Your task to perform on an android device: What is the news today? Image 0: 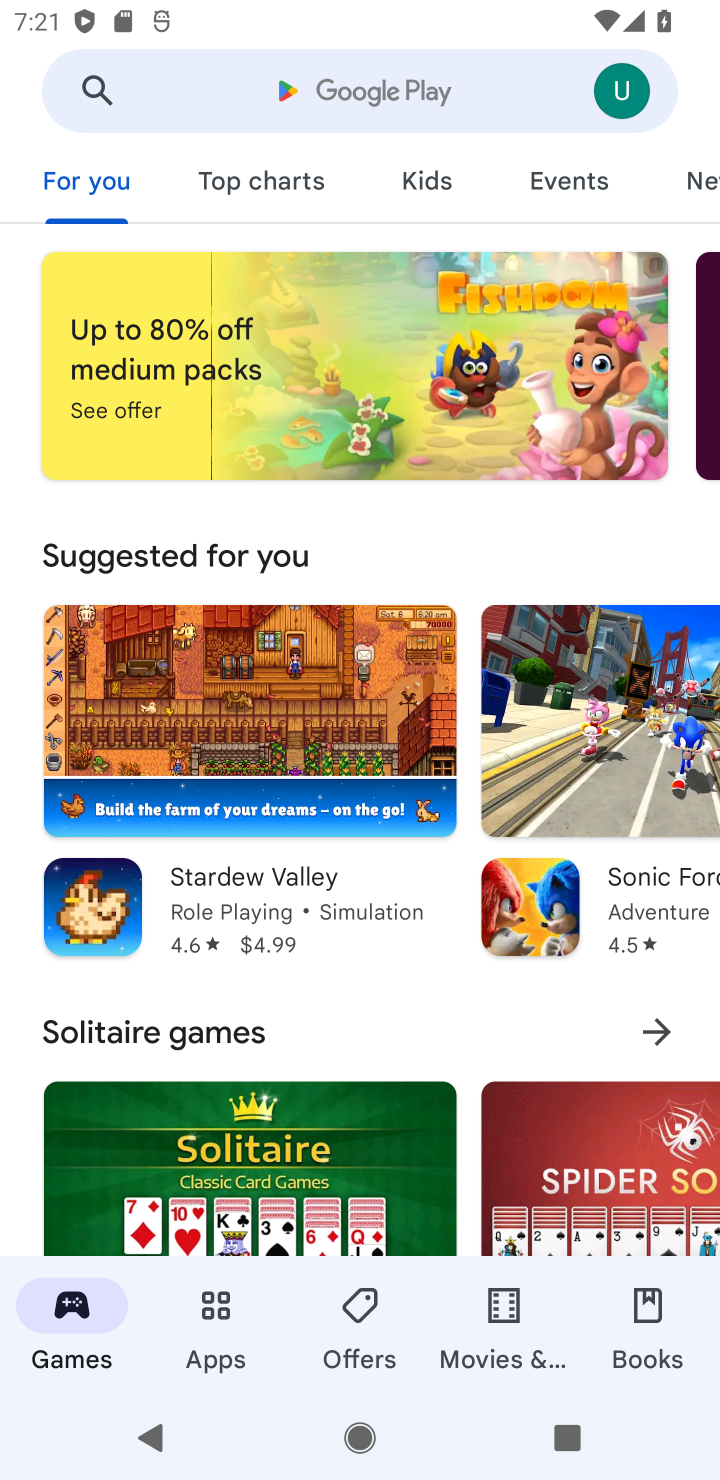
Step 0: press home button
Your task to perform on an android device: What is the news today? Image 1: 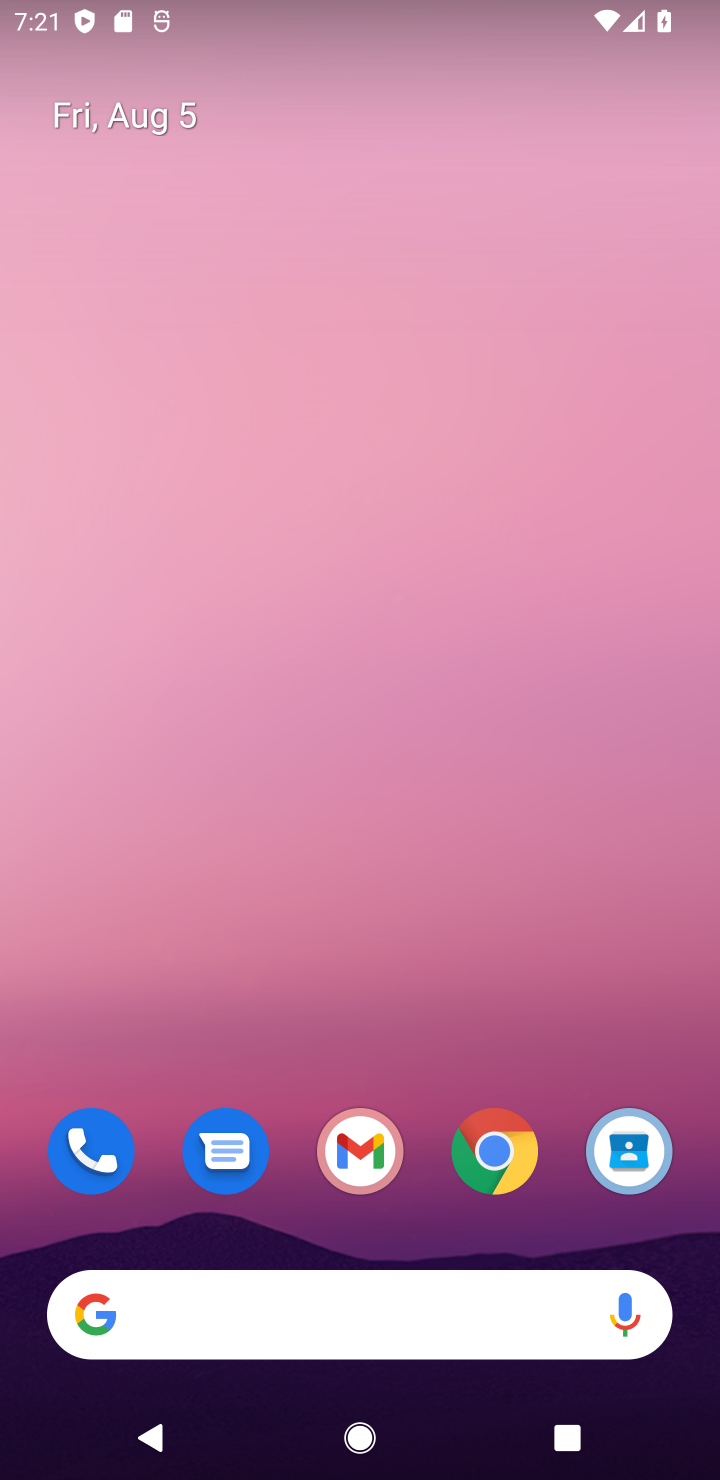
Step 1: click (219, 1335)
Your task to perform on an android device: What is the news today? Image 2: 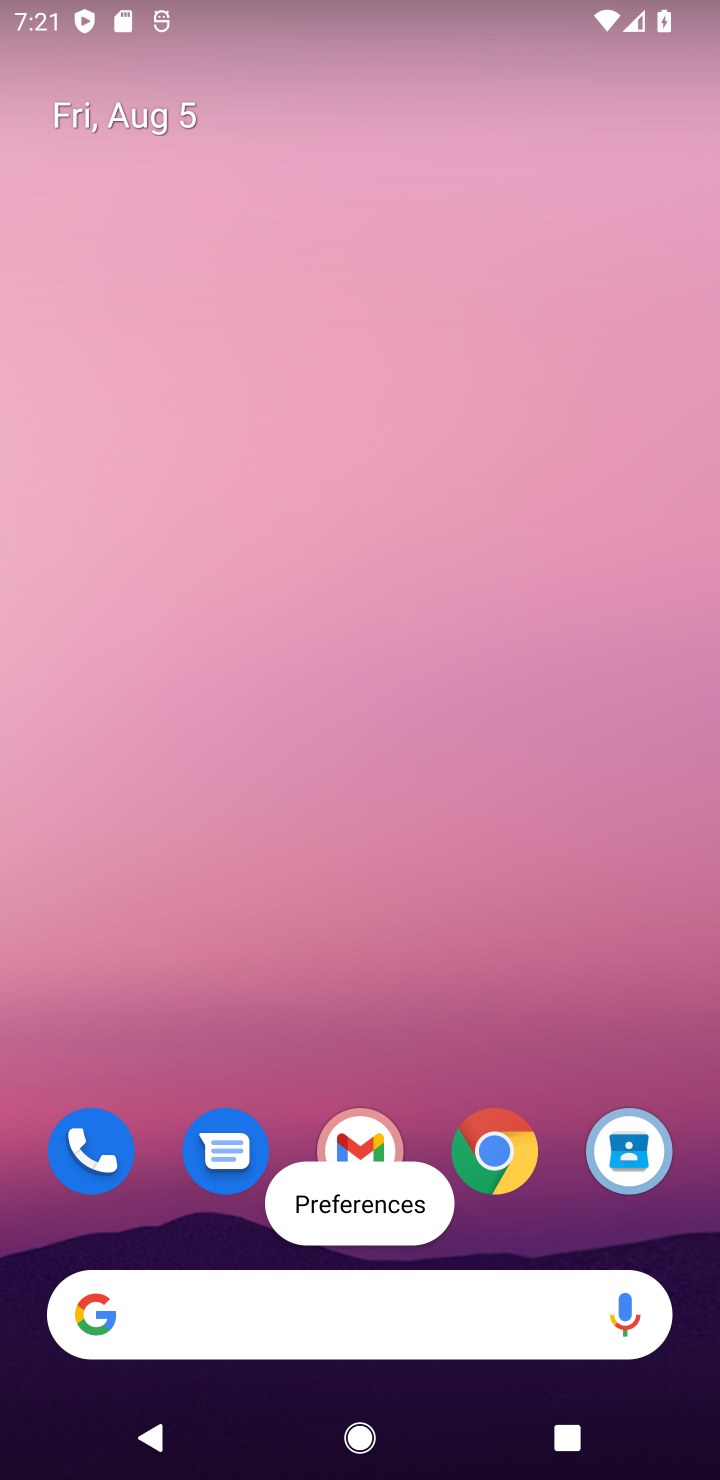
Step 2: click (377, 1300)
Your task to perform on an android device: What is the news today? Image 3: 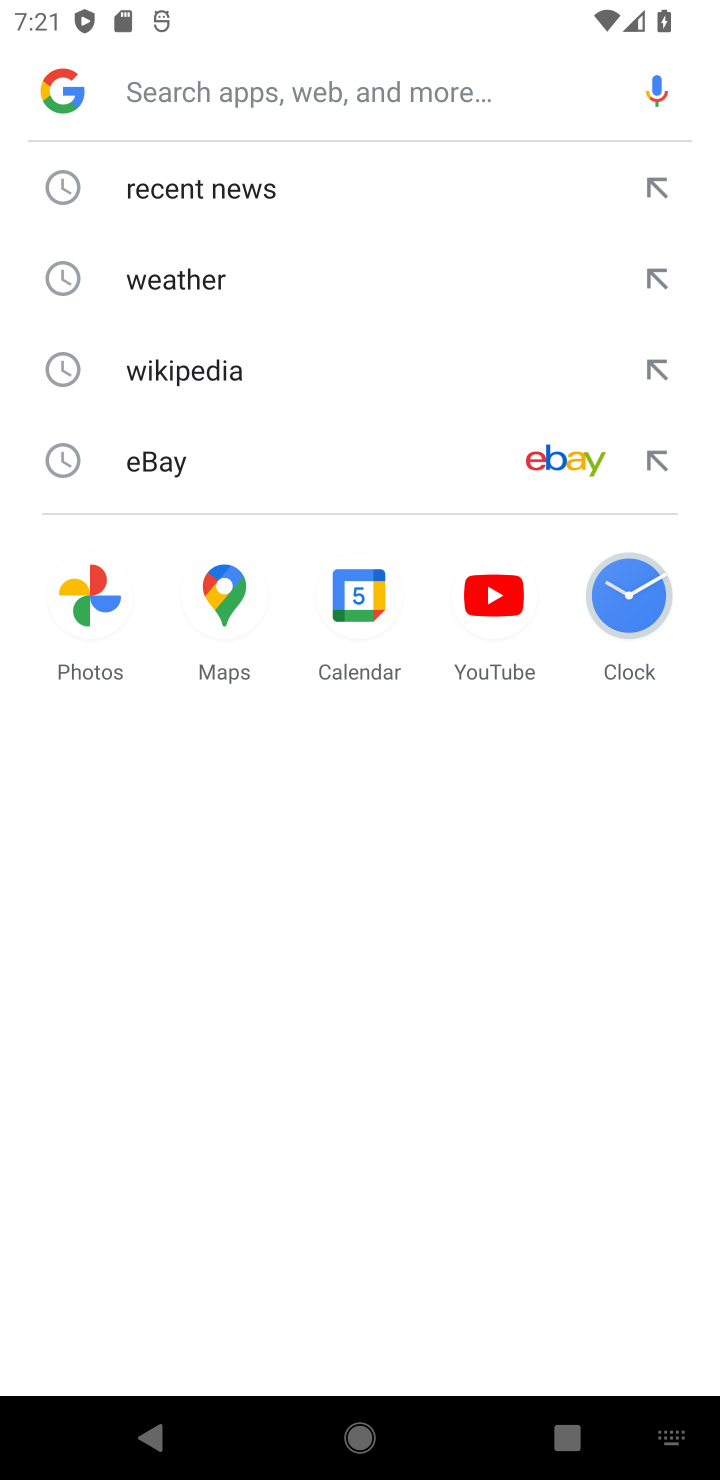
Step 3: click (161, 200)
Your task to perform on an android device: What is the news today? Image 4: 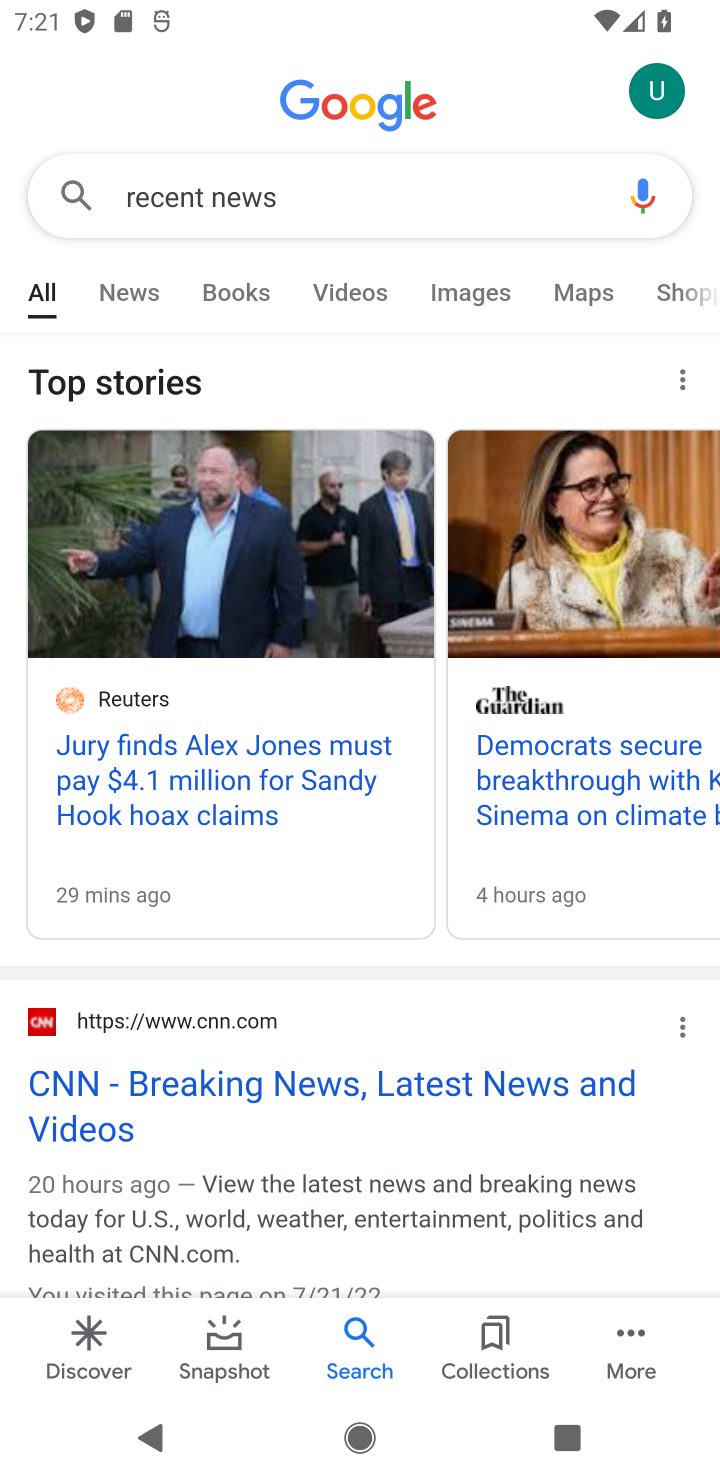
Step 4: task complete